Your task to perform on an android device: Go to privacy settings Image 0: 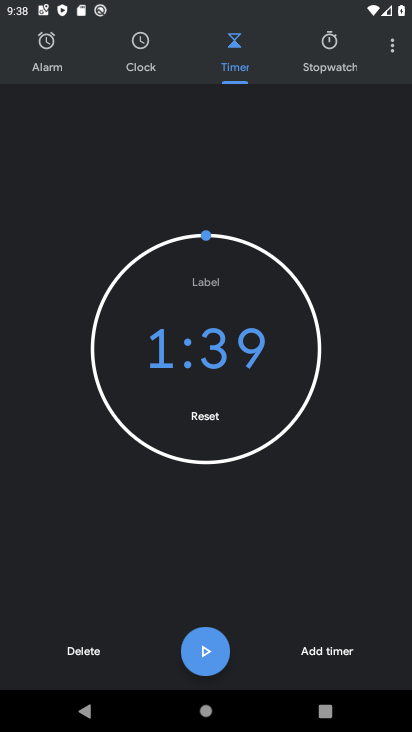
Step 0: press home button
Your task to perform on an android device: Go to privacy settings Image 1: 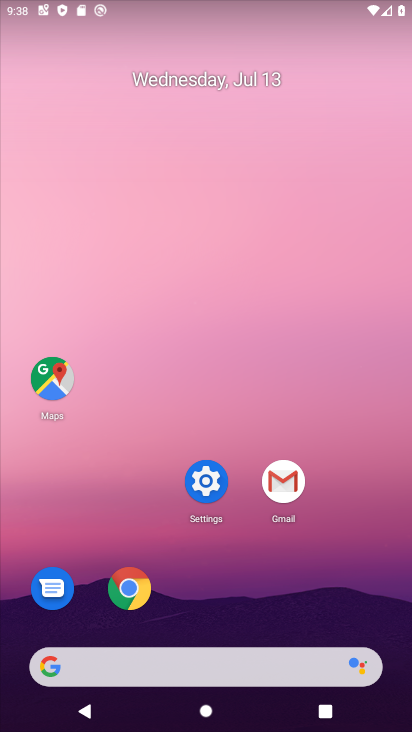
Step 1: click (212, 487)
Your task to perform on an android device: Go to privacy settings Image 2: 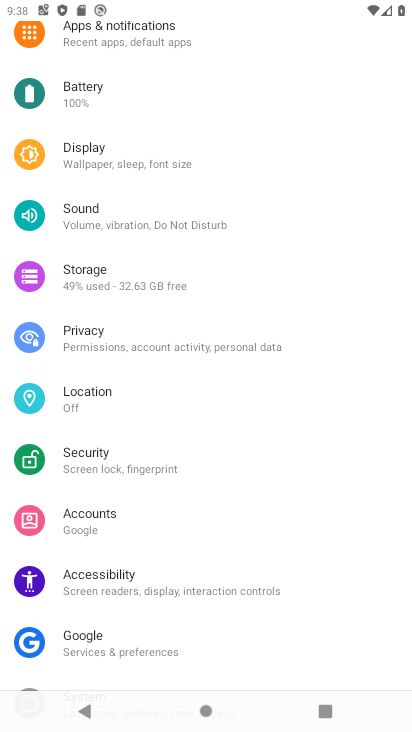
Step 2: click (78, 340)
Your task to perform on an android device: Go to privacy settings Image 3: 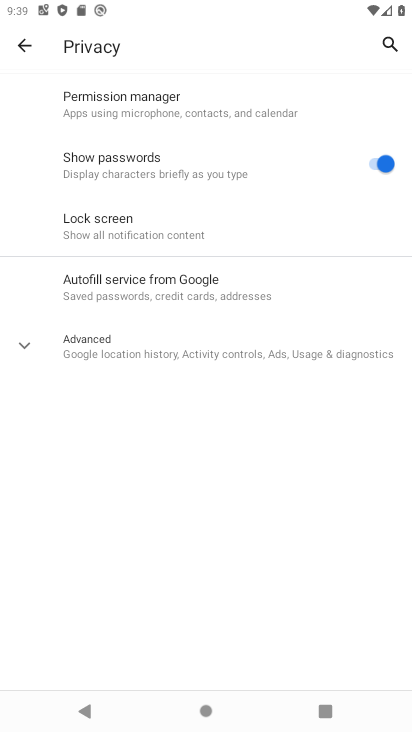
Step 3: task complete